Your task to perform on an android device: Open Google Maps Image 0: 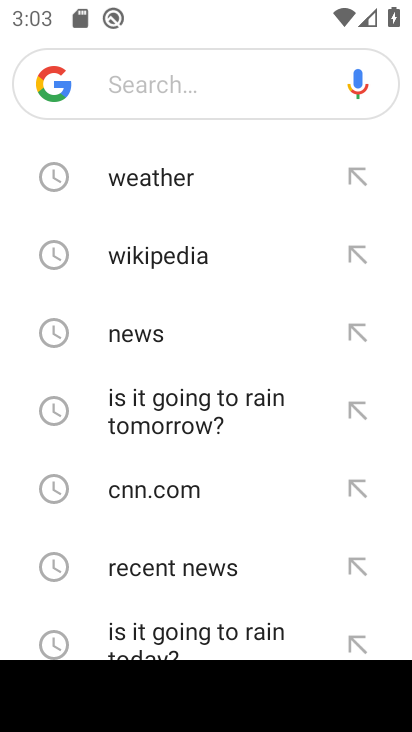
Step 0: press home button
Your task to perform on an android device: Open Google Maps Image 1: 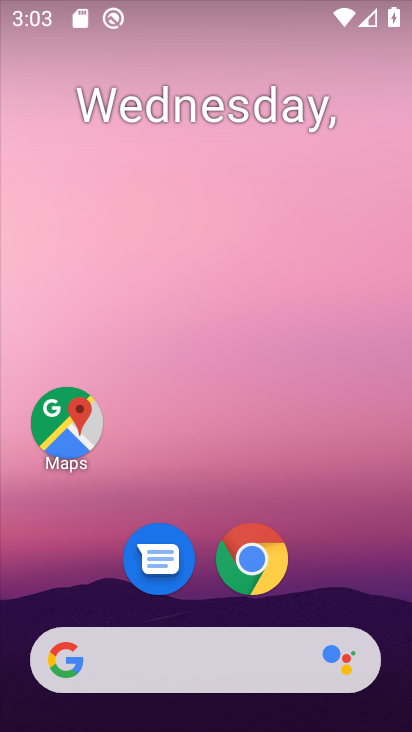
Step 1: click (84, 398)
Your task to perform on an android device: Open Google Maps Image 2: 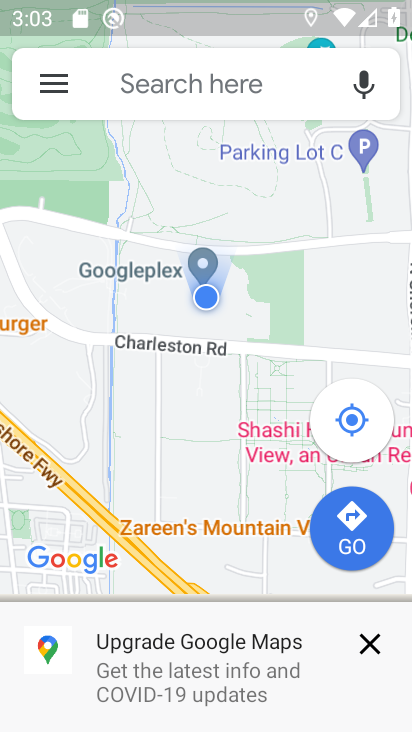
Step 2: click (368, 645)
Your task to perform on an android device: Open Google Maps Image 3: 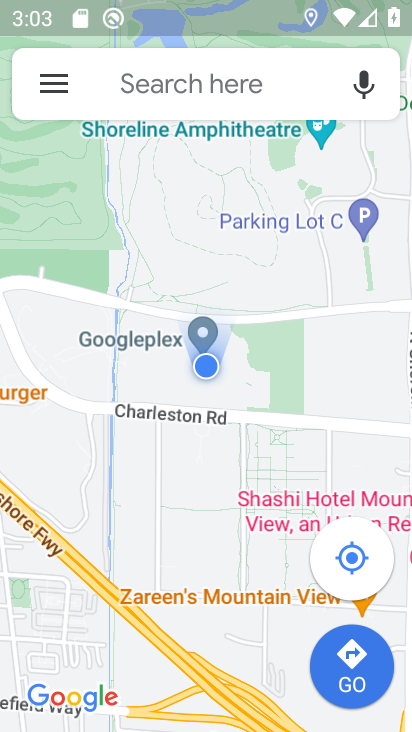
Step 3: task complete